Your task to perform on an android device: change the clock display to show seconds Image 0: 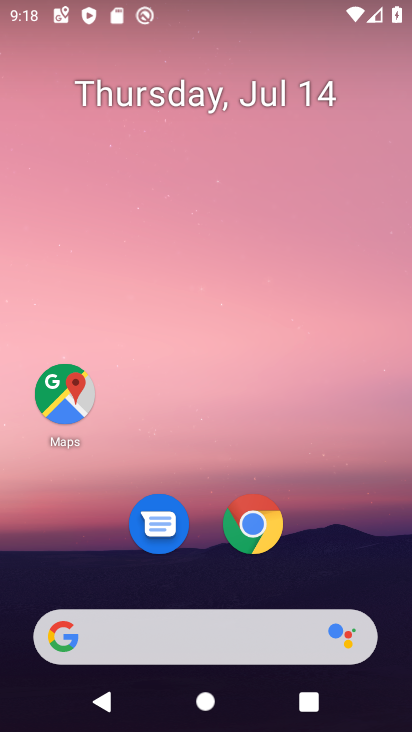
Step 0: drag from (281, 368) to (301, 17)
Your task to perform on an android device: change the clock display to show seconds Image 1: 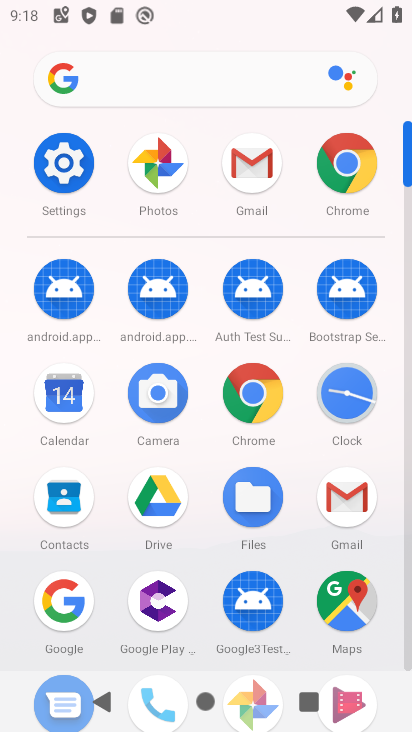
Step 1: click (343, 413)
Your task to perform on an android device: change the clock display to show seconds Image 2: 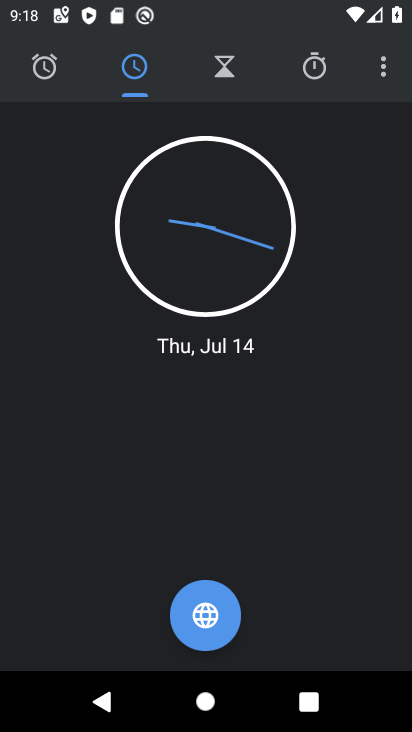
Step 2: click (389, 77)
Your task to perform on an android device: change the clock display to show seconds Image 3: 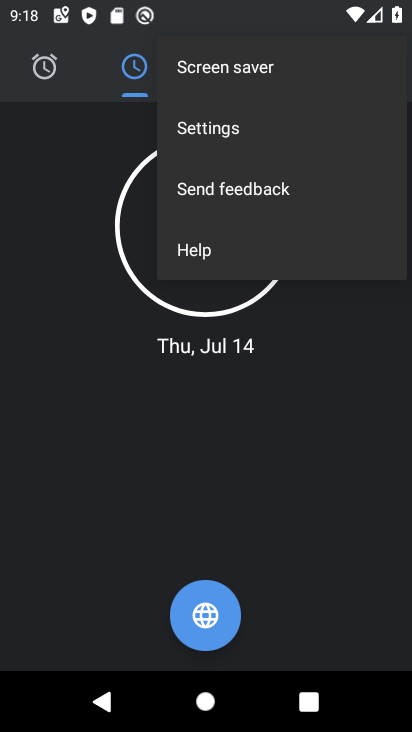
Step 3: click (296, 123)
Your task to perform on an android device: change the clock display to show seconds Image 4: 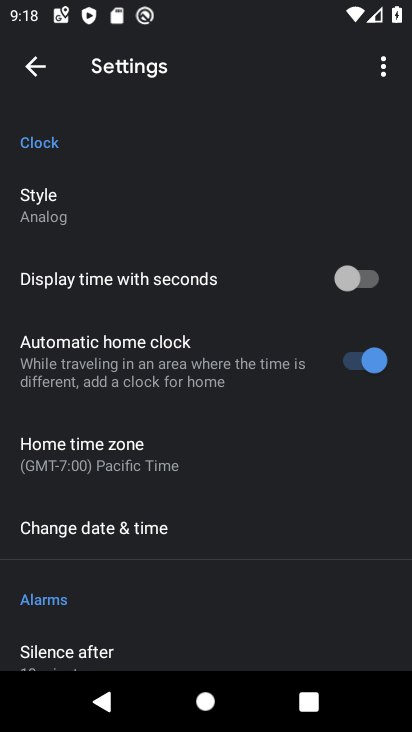
Step 4: click (363, 281)
Your task to perform on an android device: change the clock display to show seconds Image 5: 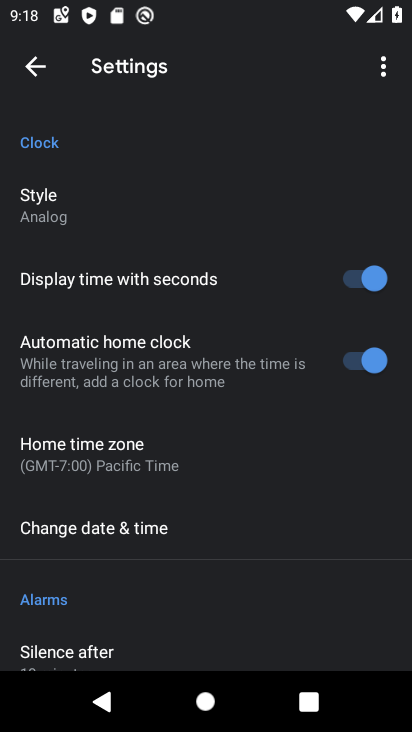
Step 5: click (36, 67)
Your task to perform on an android device: change the clock display to show seconds Image 6: 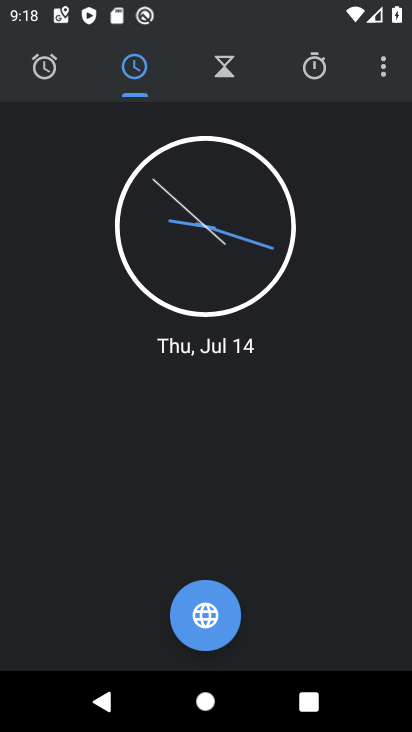
Step 6: task complete